Your task to perform on an android device: Open network settings Image 0: 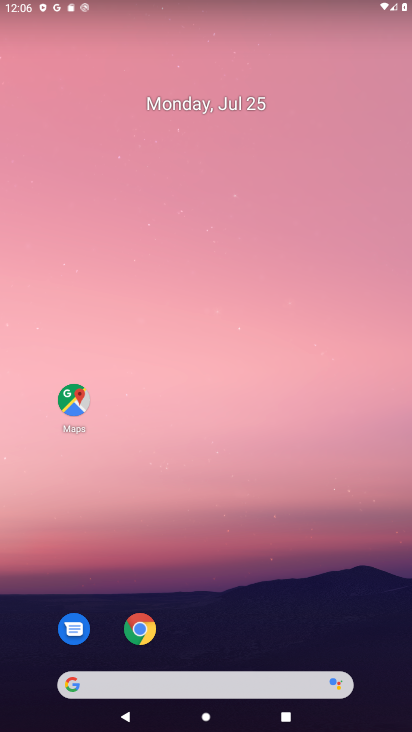
Step 0: drag from (314, 294) to (321, 119)
Your task to perform on an android device: Open network settings Image 1: 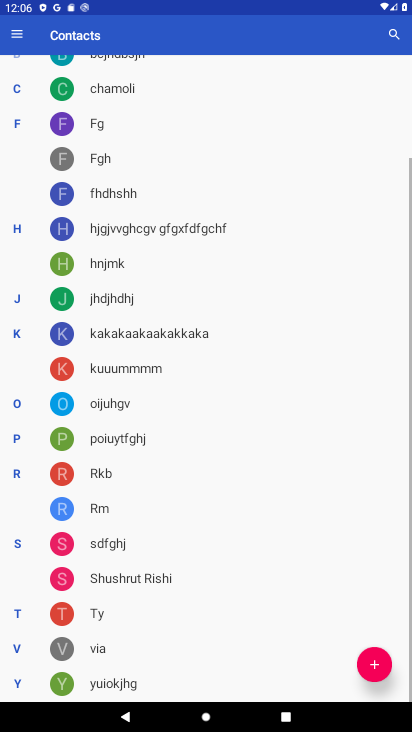
Step 1: press home button
Your task to perform on an android device: Open network settings Image 2: 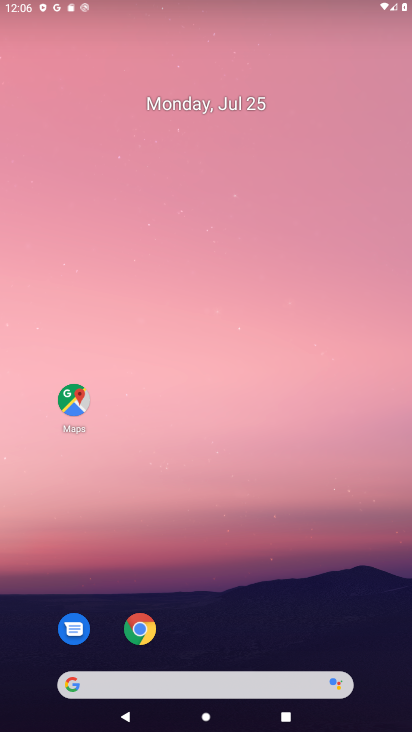
Step 2: drag from (326, 618) to (270, 105)
Your task to perform on an android device: Open network settings Image 3: 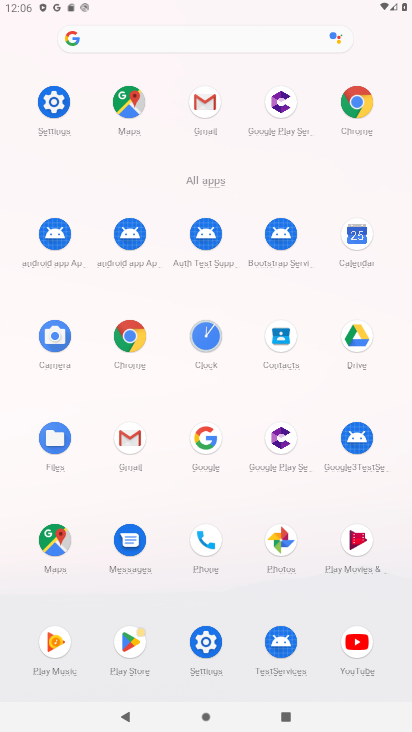
Step 3: click (62, 102)
Your task to perform on an android device: Open network settings Image 4: 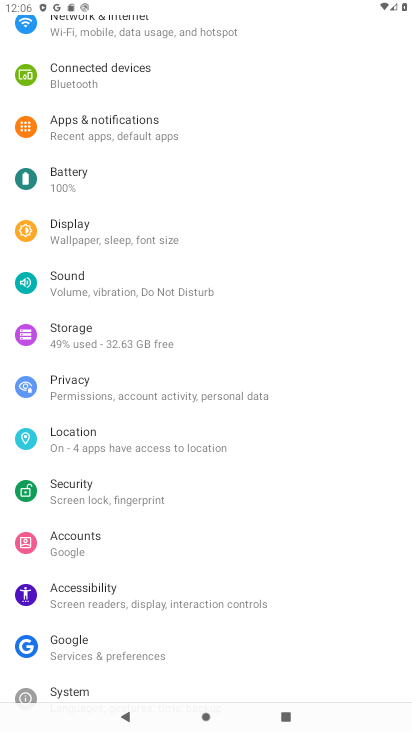
Step 4: click (103, 26)
Your task to perform on an android device: Open network settings Image 5: 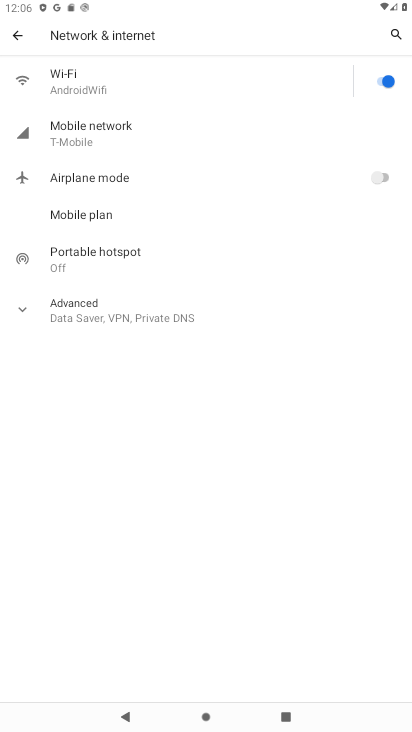
Step 5: click (157, 317)
Your task to perform on an android device: Open network settings Image 6: 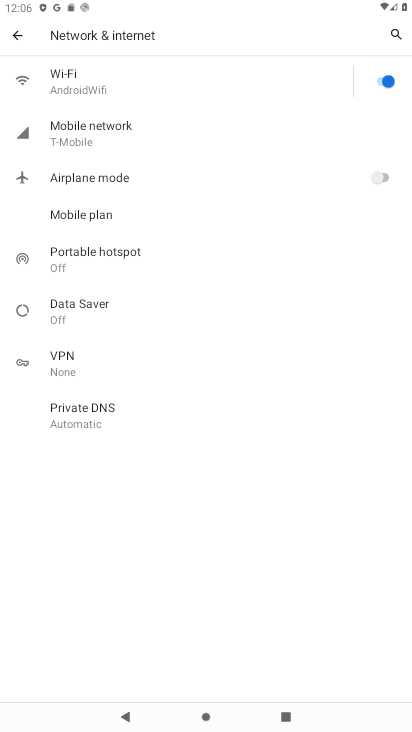
Step 6: task complete